Your task to perform on an android device: turn on improve location accuracy Image 0: 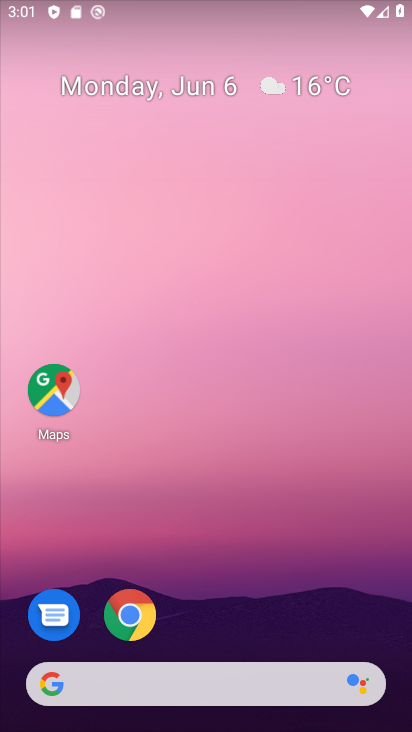
Step 0: drag from (298, 598) to (314, 101)
Your task to perform on an android device: turn on improve location accuracy Image 1: 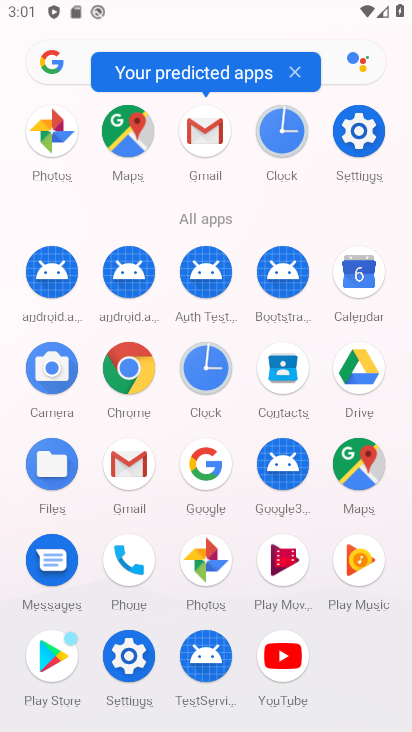
Step 1: click (362, 130)
Your task to perform on an android device: turn on improve location accuracy Image 2: 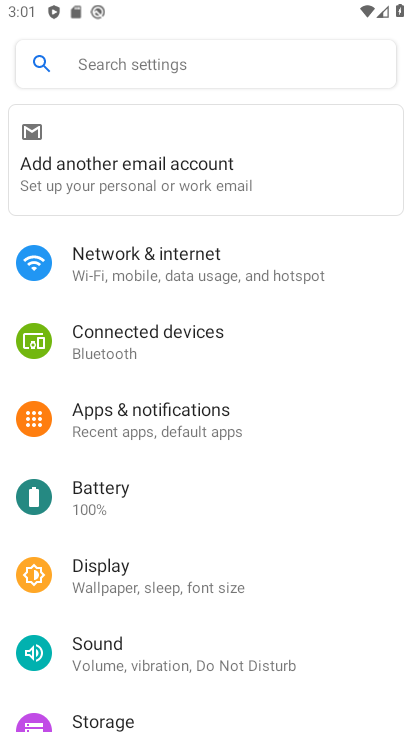
Step 2: drag from (194, 669) to (221, 236)
Your task to perform on an android device: turn on improve location accuracy Image 3: 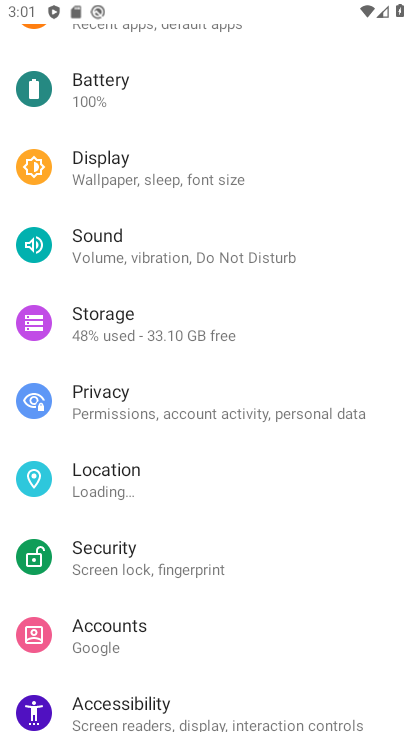
Step 3: click (142, 478)
Your task to perform on an android device: turn on improve location accuracy Image 4: 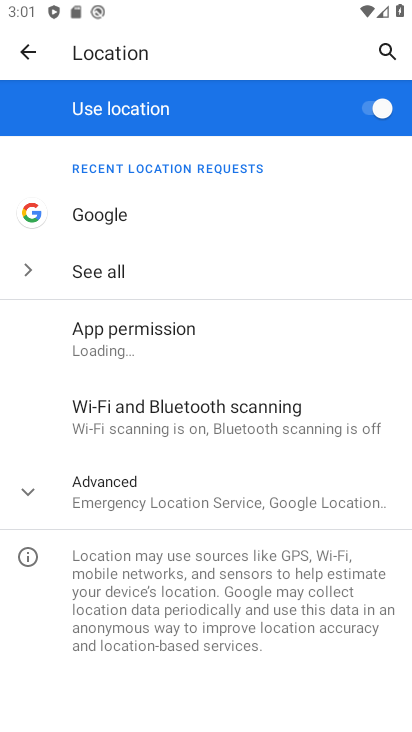
Step 4: click (185, 509)
Your task to perform on an android device: turn on improve location accuracy Image 5: 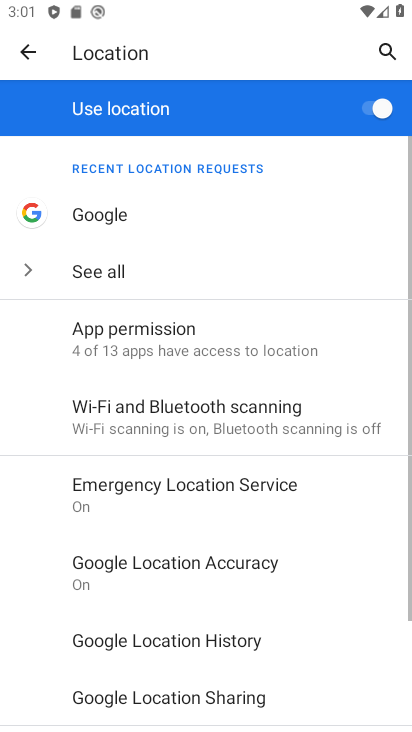
Step 5: click (202, 569)
Your task to perform on an android device: turn on improve location accuracy Image 6: 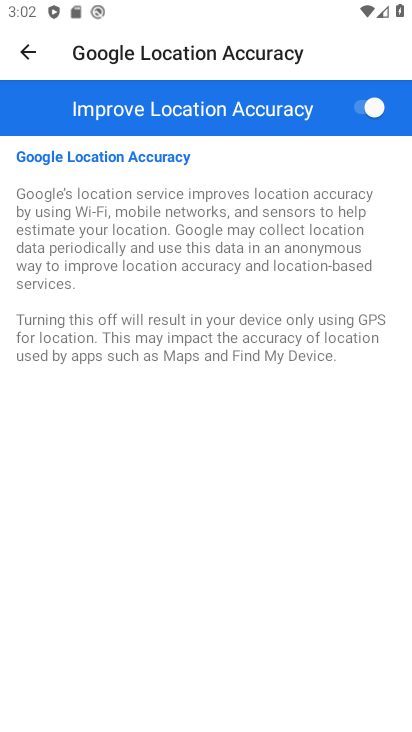
Step 6: task complete